Your task to perform on an android device: Open the map Image 0: 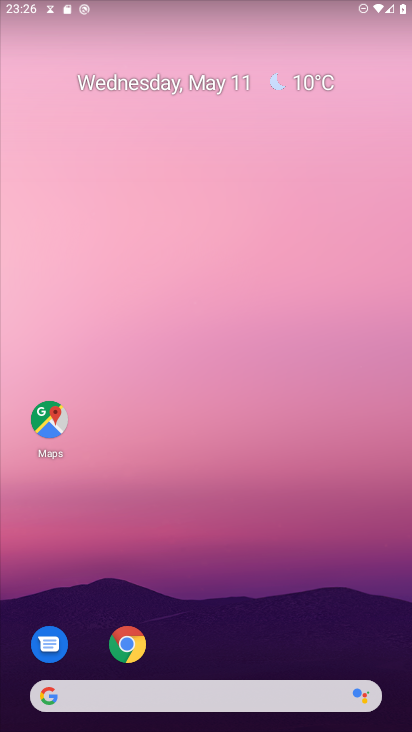
Step 0: click (52, 431)
Your task to perform on an android device: Open the map Image 1: 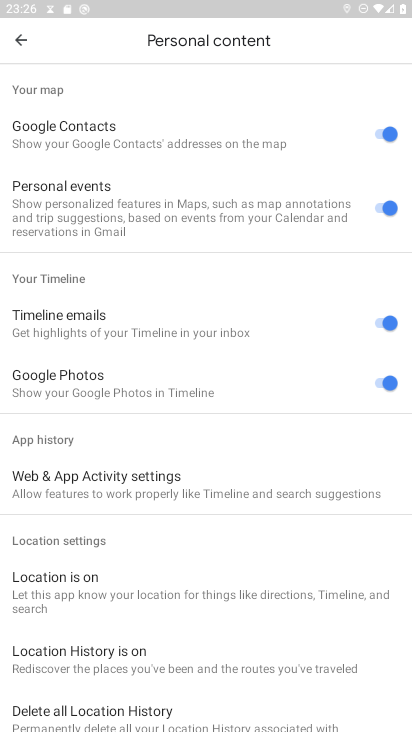
Step 1: task complete